Your task to perform on an android device: check google app version Image 0: 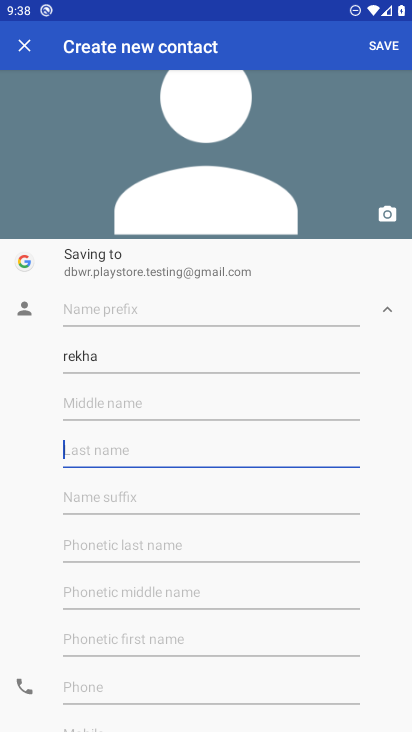
Step 0: press home button
Your task to perform on an android device: check google app version Image 1: 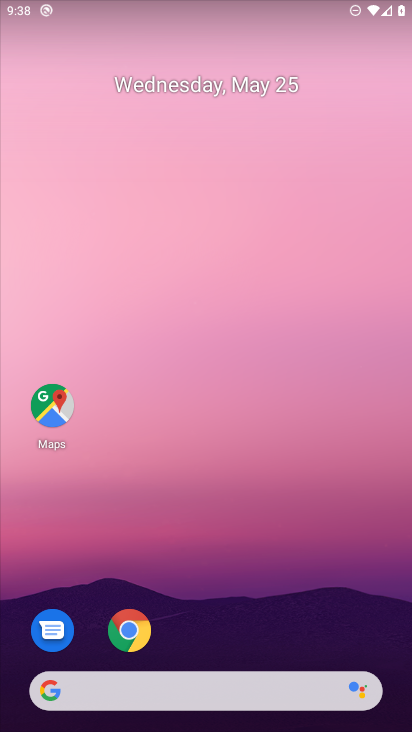
Step 1: drag from (173, 677) to (198, 321)
Your task to perform on an android device: check google app version Image 2: 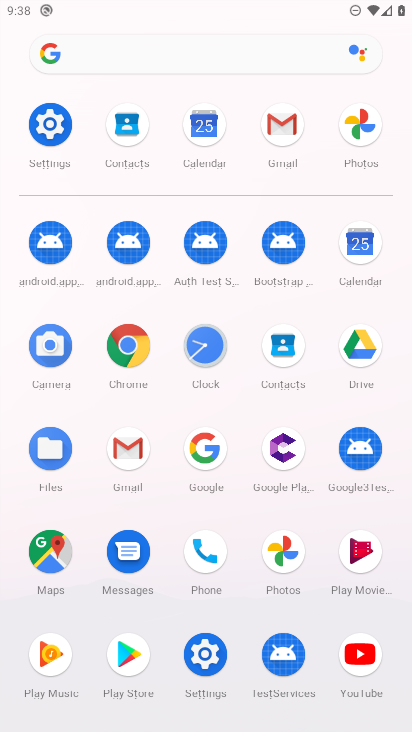
Step 2: click (203, 456)
Your task to perform on an android device: check google app version Image 3: 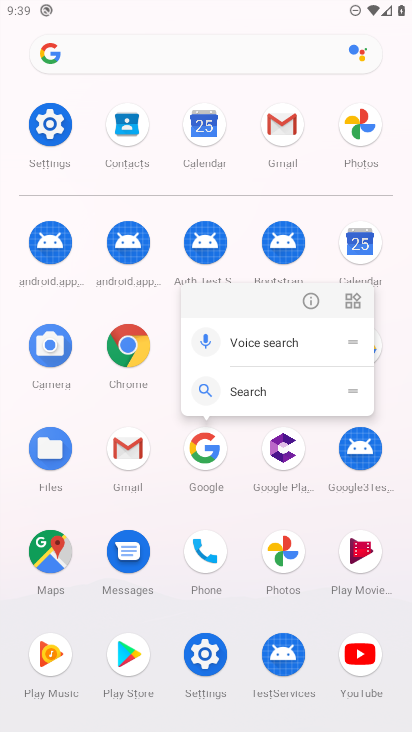
Step 3: click (310, 305)
Your task to perform on an android device: check google app version Image 4: 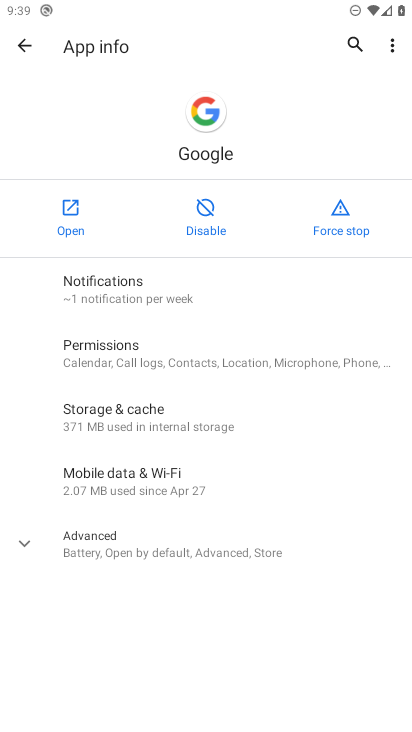
Step 4: click (87, 545)
Your task to perform on an android device: check google app version Image 5: 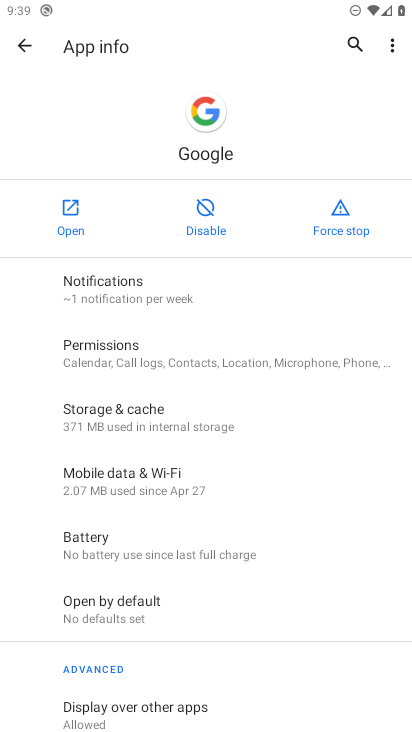
Step 5: task complete